Your task to perform on an android device: toggle sleep mode Image 0: 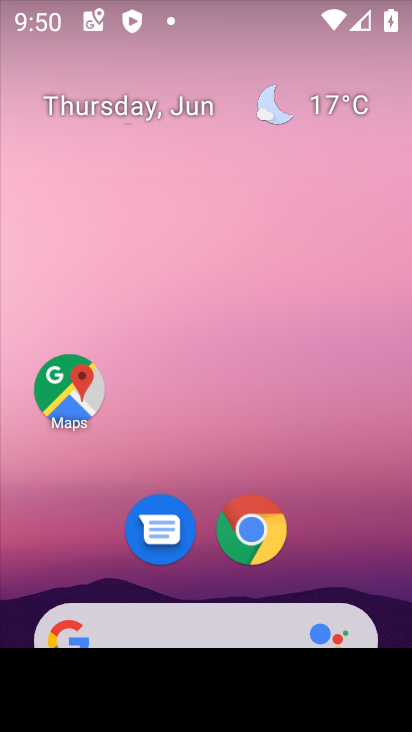
Step 0: drag from (376, 581) to (322, 29)
Your task to perform on an android device: toggle sleep mode Image 1: 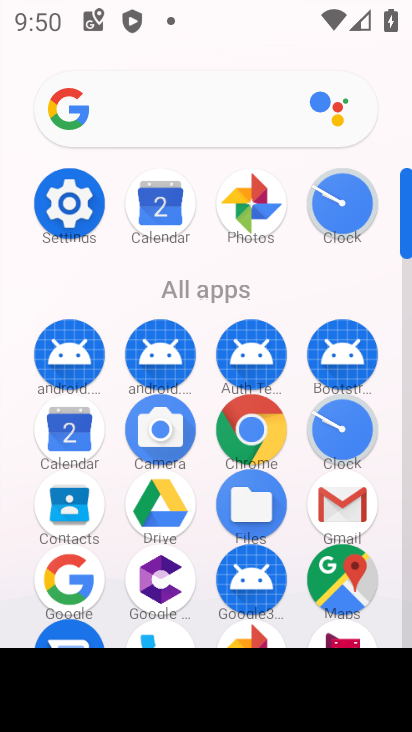
Step 1: click (407, 606)
Your task to perform on an android device: toggle sleep mode Image 2: 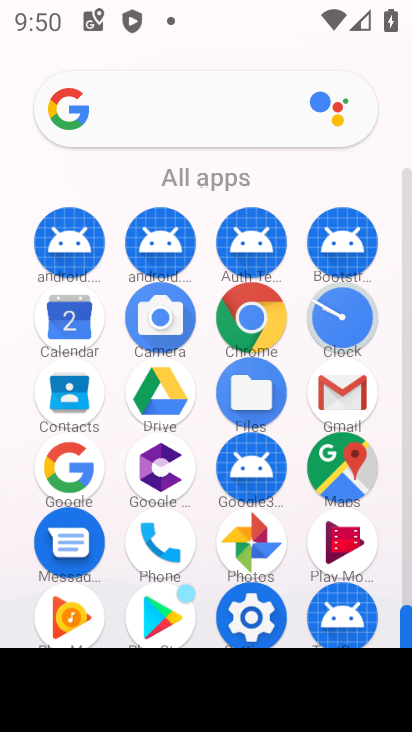
Step 2: click (251, 619)
Your task to perform on an android device: toggle sleep mode Image 3: 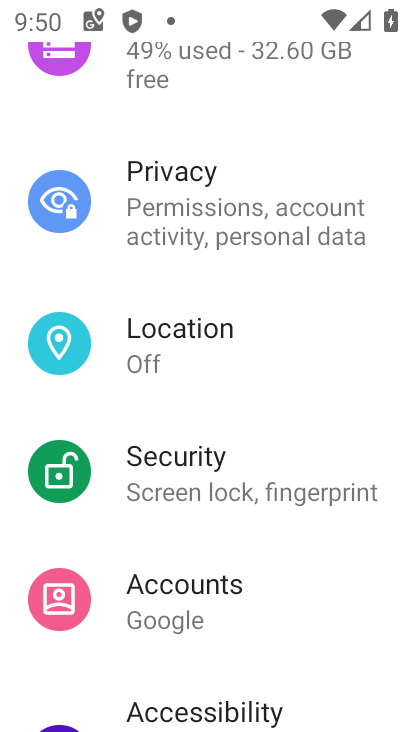
Step 3: click (251, 619)
Your task to perform on an android device: toggle sleep mode Image 4: 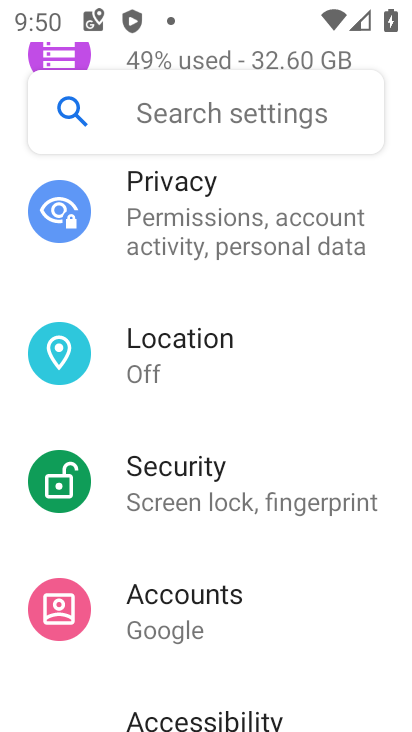
Step 4: drag from (277, 254) to (251, 524)
Your task to perform on an android device: toggle sleep mode Image 5: 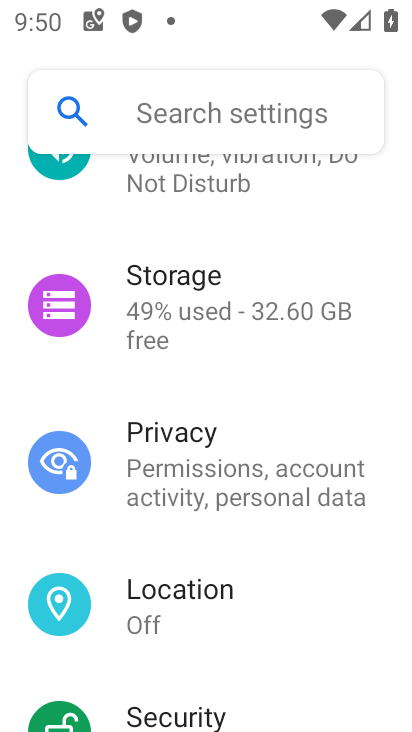
Step 5: drag from (313, 247) to (292, 543)
Your task to perform on an android device: toggle sleep mode Image 6: 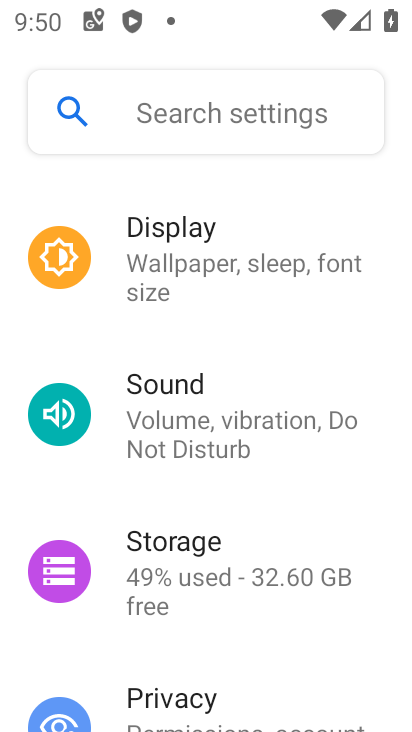
Step 6: click (171, 250)
Your task to perform on an android device: toggle sleep mode Image 7: 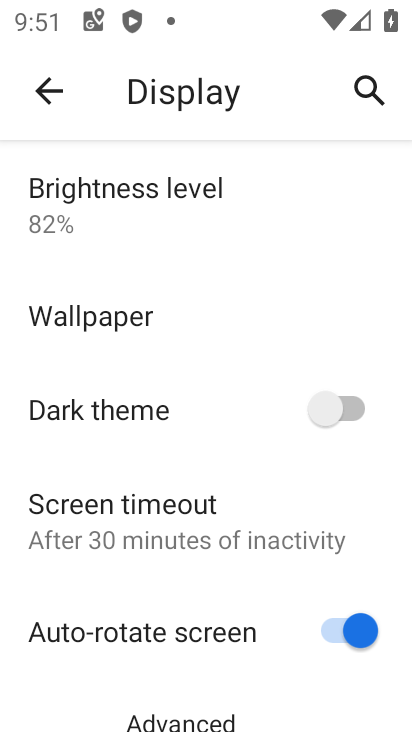
Step 7: drag from (197, 606) to (225, 278)
Your task to perform on an android device: toggle sleep mode Image 8: 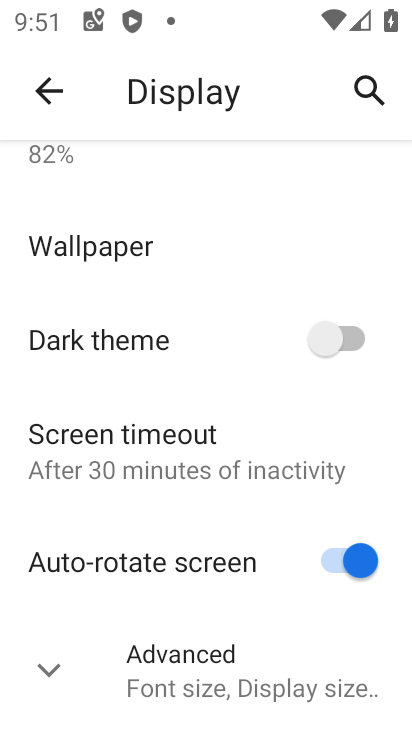
Step 8: click (46, 687)
Your task to perform on an android device: toggle sleep mode Image 9: 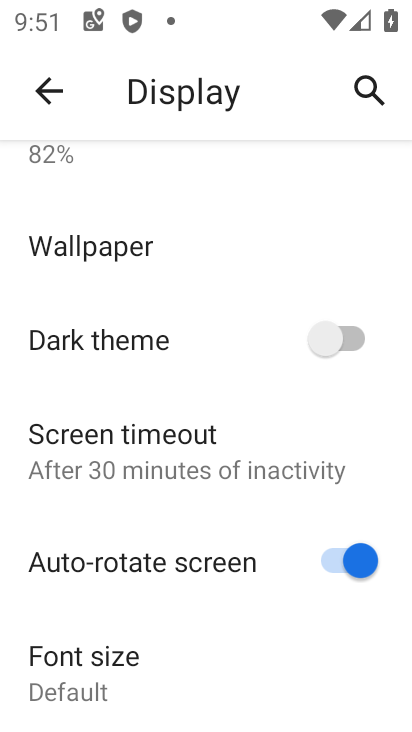
Step 9: task complete